Your task to perform on an android device: open chrome privacy settings Image 0: 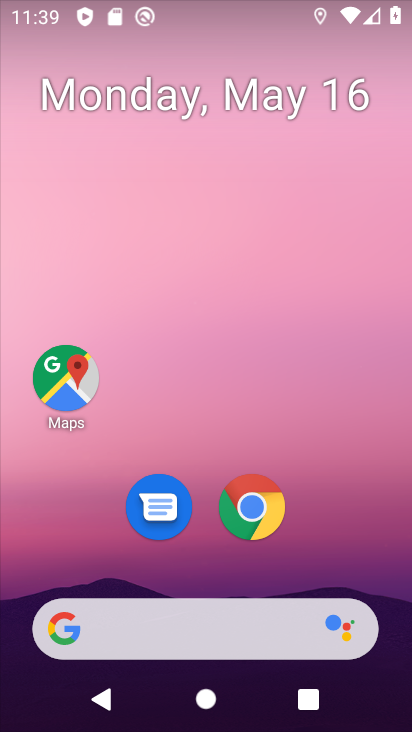
Step 0: drag from (201, 589) to (241, 218)
Your task to perform on an android device: open chrome privacy settings Image 1: 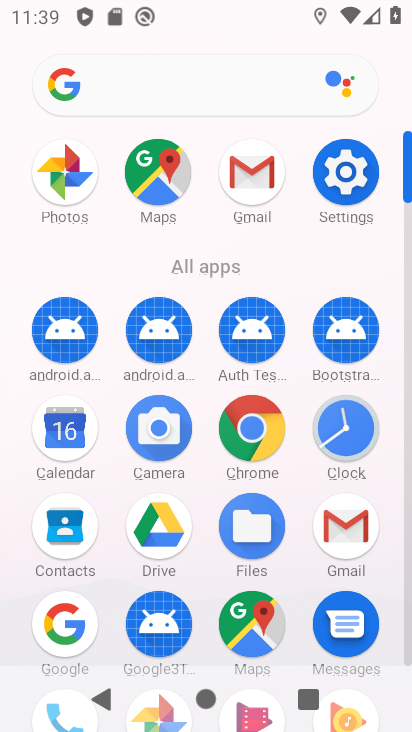
Step 1: click (253, 434)
Your task to perform on an android device: open chrome privacy settings Image 2: 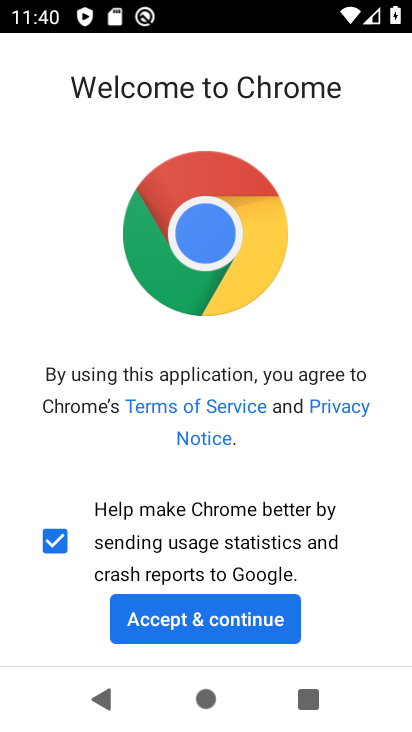
Step 2: click (228, 614)
Your task to perform on an android device: open chrome privacy settings Image 3: 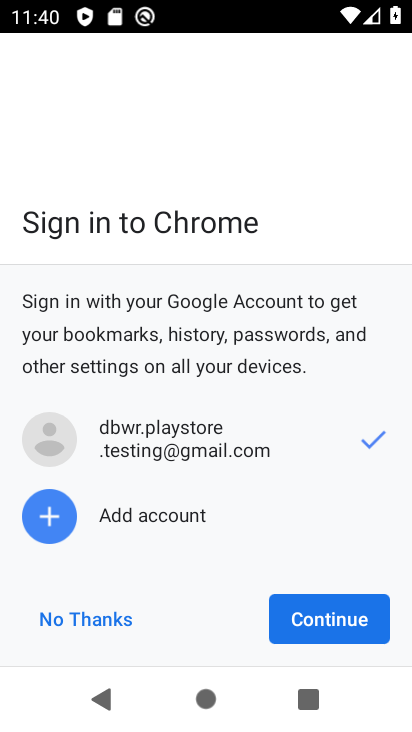
Step 3: click (315, 616)
Your task to perform on an android device: open chrome privacy settings Image 4: 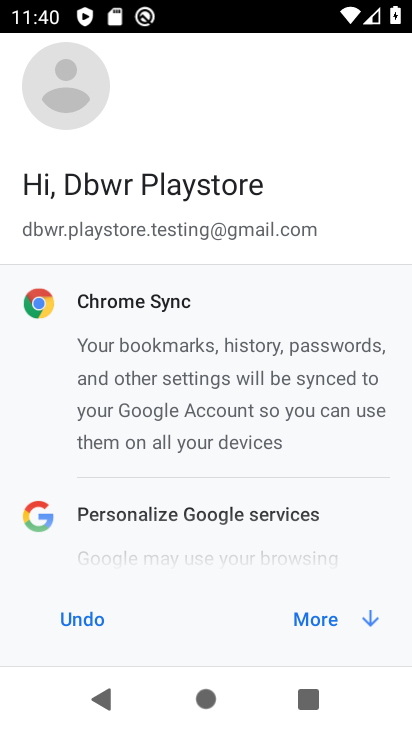
Step 4: click (334, 611)
Your task to perform on an android device: open chrome privacy settings Image 5: 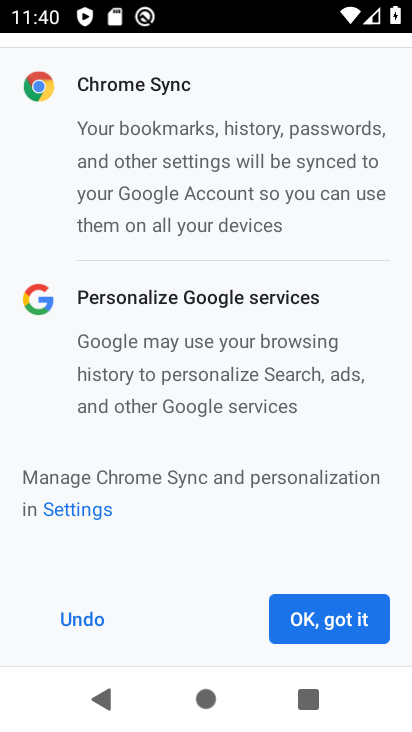
Step 5: click (334, 611)
Your task to perform on an android device: open chrome privacy settings Image 6: 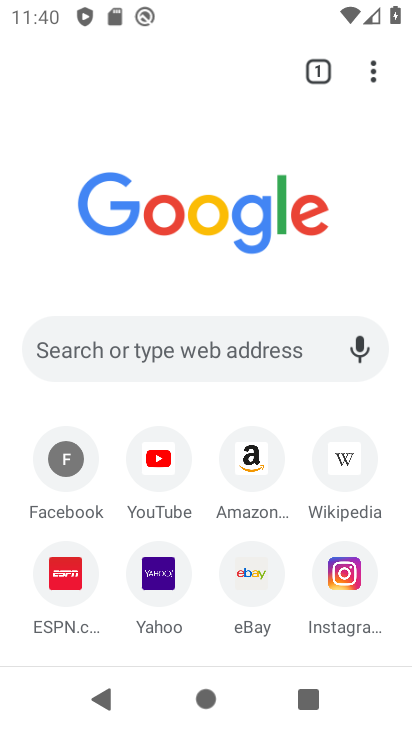
Step 6: click (382, 81)
Your task to perform on an android device: open chrome privacy settings Image 7: 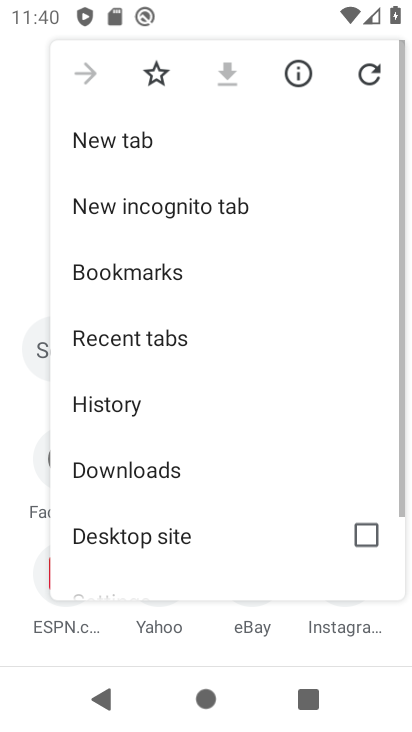
Step 7: drag from (206, 503) to (236, 125)
Your task to perform on an android device: open chrome privacy settings Image 8: 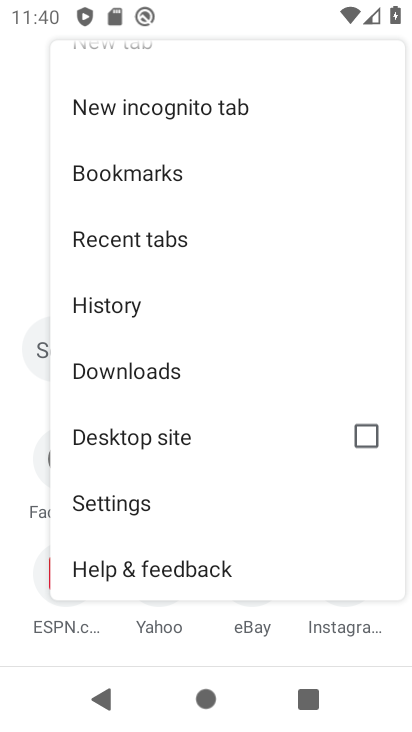
Step 8: click (182, 513)
Your task to perform on an android device: open chrome privacy settings Image 9: 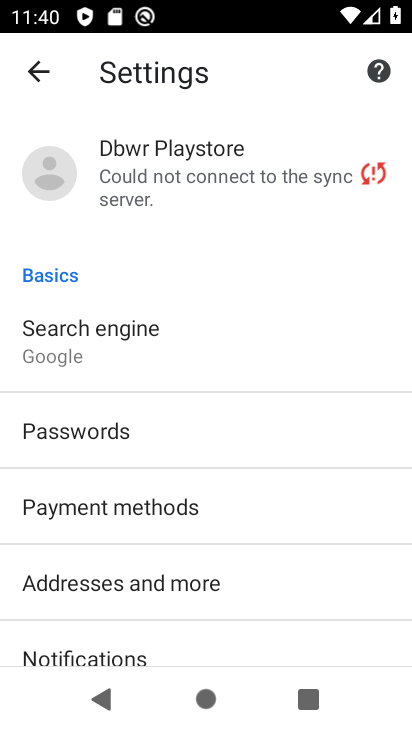
Step 9: drag from (185, 578) to (205, 275)
Your task to perform on an android device: open chrome privacy settings Image 10: 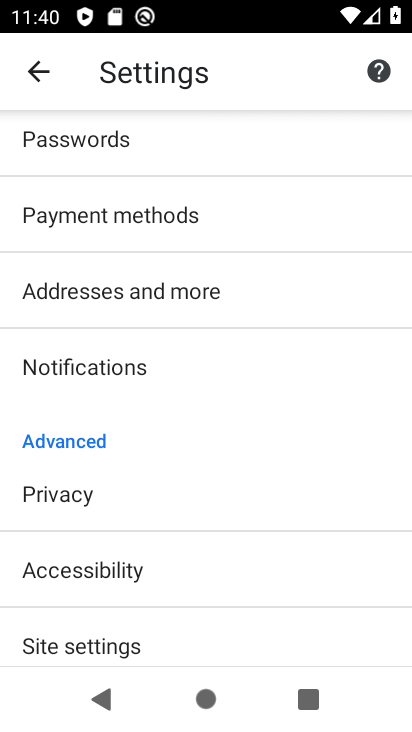
Step 10: click (87, 507)
Your task to perform on an android device: open chrome privacy settings Image 11: 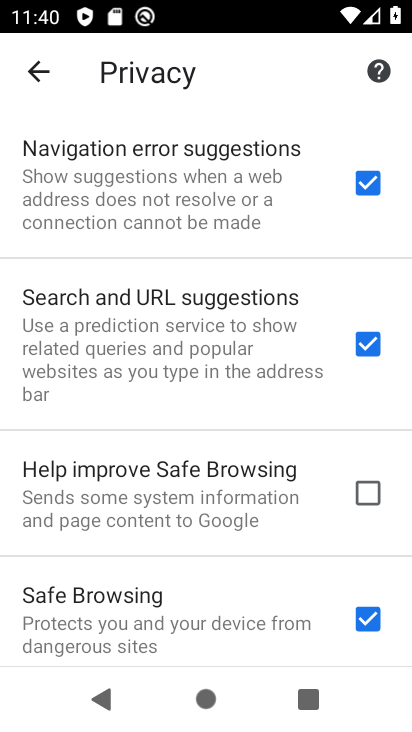
Step 11: task complete